Your task to perform on an android device: Open battery settings Image 0: 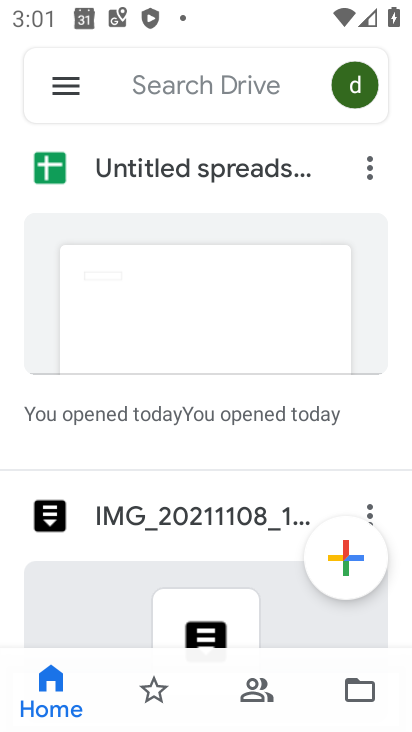
Step 0: press home button
Your task to perform on an android device: Open battery settings Image 1: 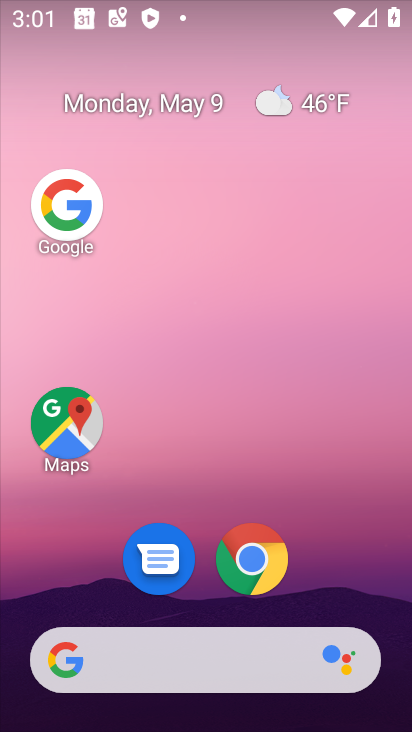
Step 1: drag from (333, 600) to (347, 194)
Your task to perform on an android device: Open battery settings Image 2: 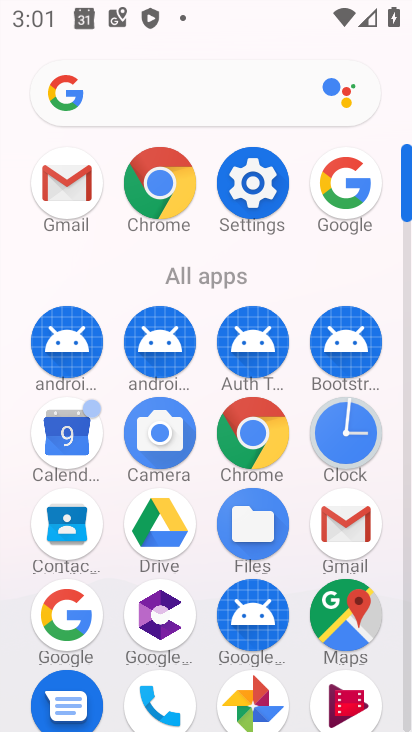
Step 2: click (254, 182)
Your task to perform on an android device: Open battery settings Image 3: 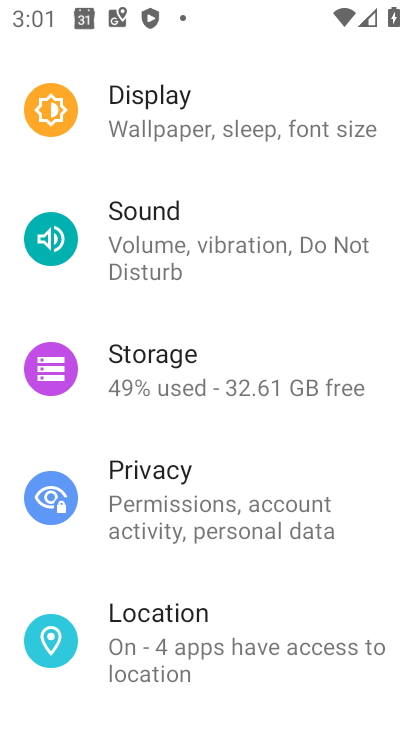
Step 3: drag from (274, 272) to (331, 614)
Your task to perform on an android device: Open battery settings Image 4: 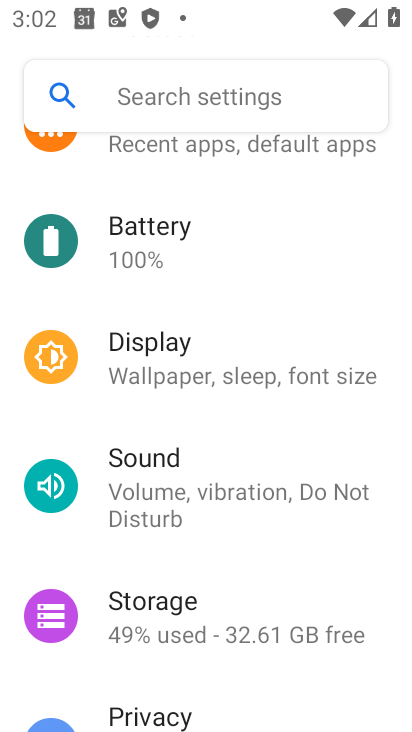
Step 4: click (247, 232)
Your task to perform on an android device: Open battery settings Image 5: 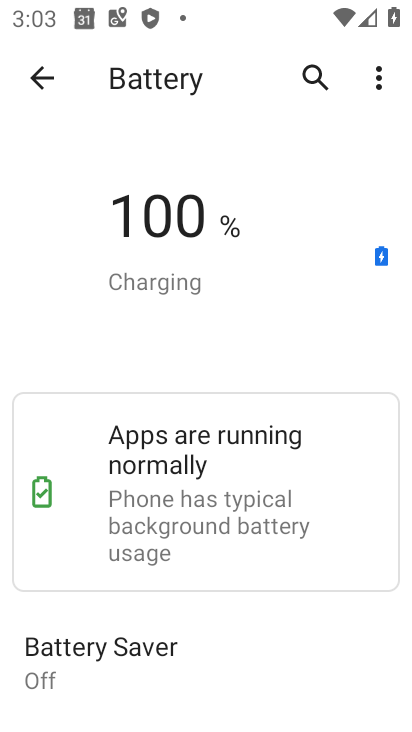
Step 5: task complete